Your task to perform on an android device: turn on notifications settings in the gmail app Image 0: 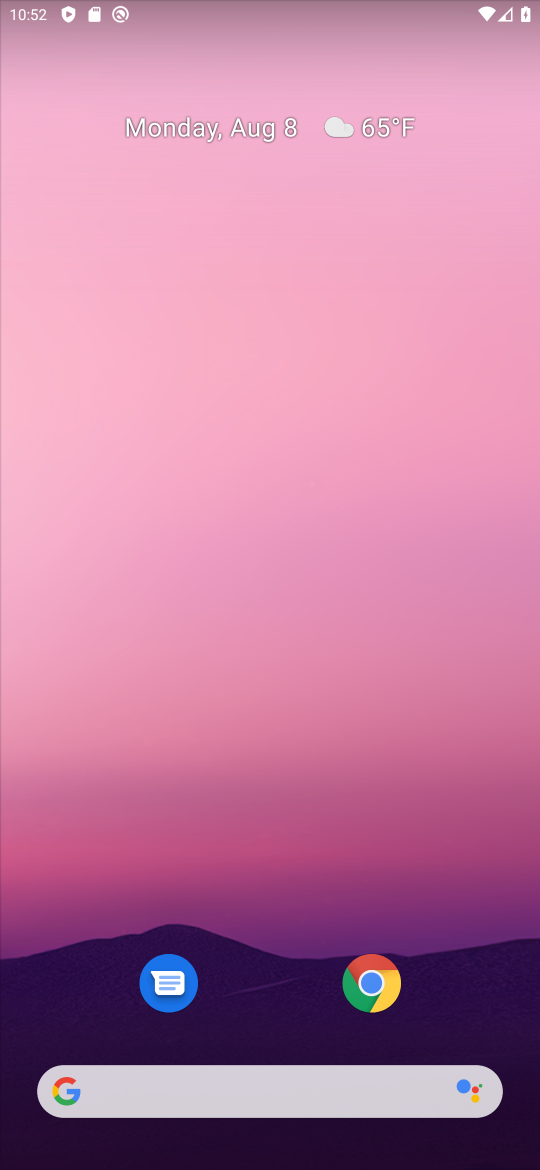
Step 0: drag from (305, 1024) to (300, 301)
Your task to perform on an android device: turn on notifications settings in the gmail app Image 1: 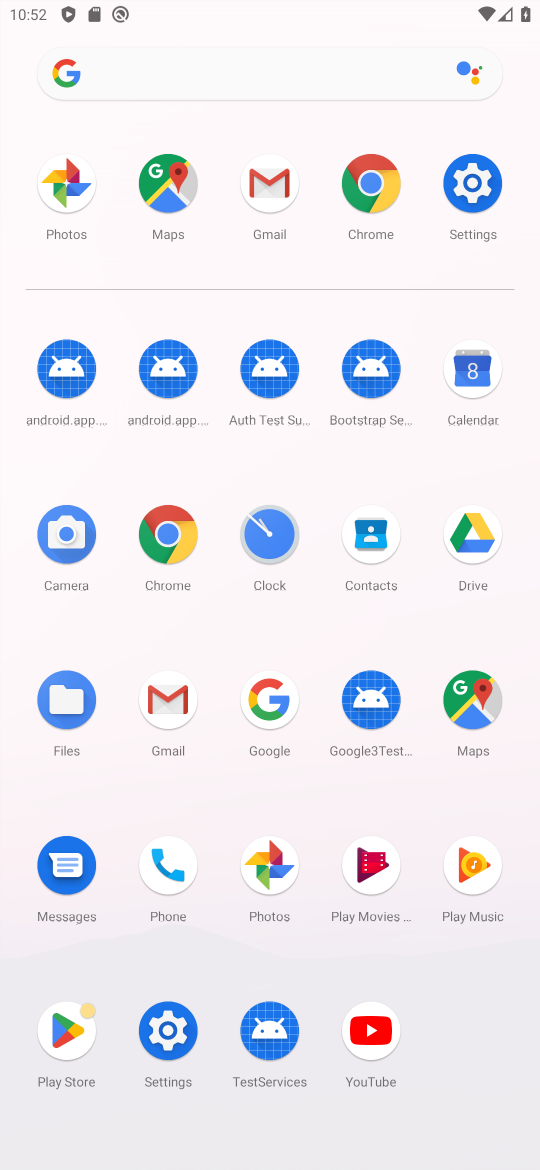
Step 1: click (168, 762)
Your task to perform on an android device: turn on notifications settings in the gmail app Image 2: 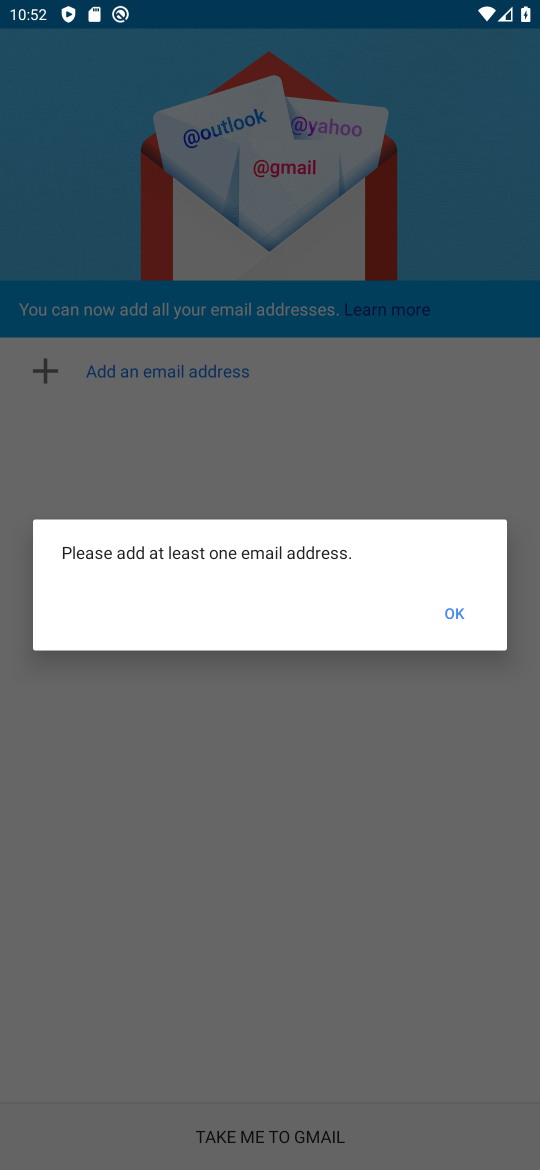
Step 2: click (461, 625)
Your task to perform on an android device: turn on notifications settings in the gmail app Image 3: 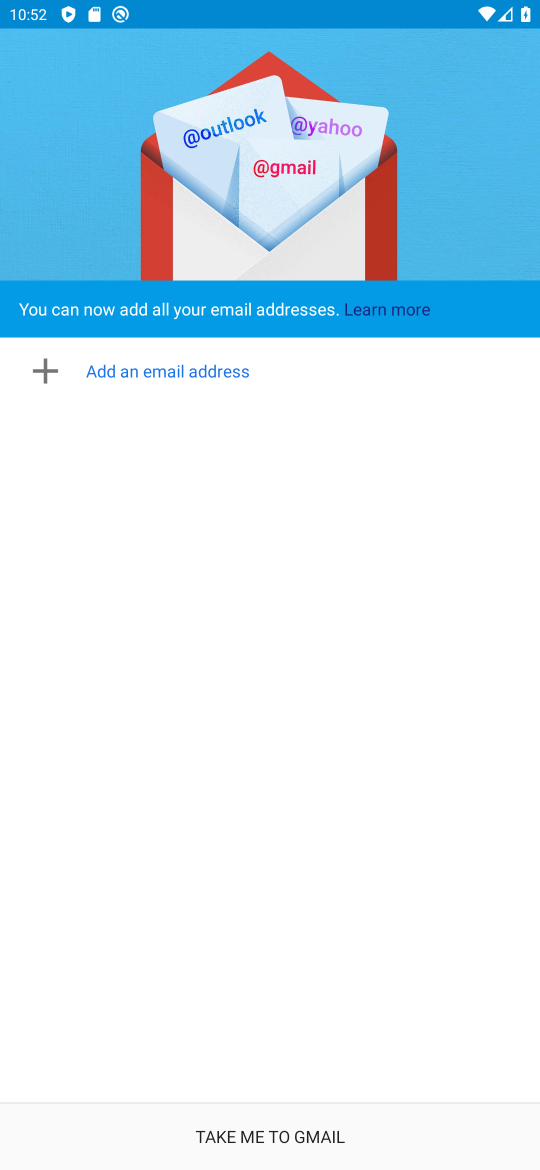
Step 3: task complete